Your task to perform on an android device: Open Google Chrome and click the shortcut for Amazon.com Image 0: 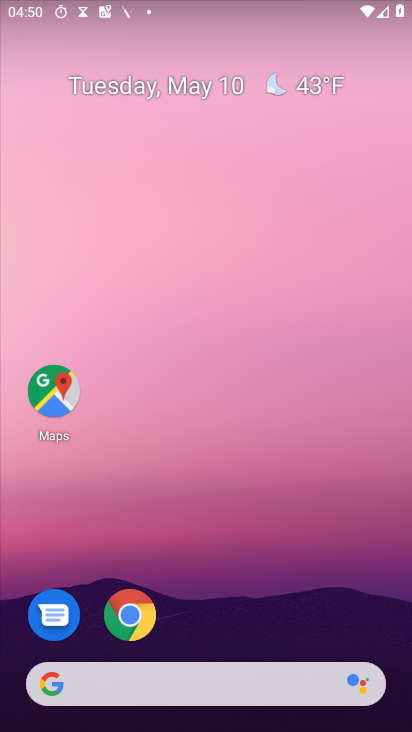
Step 0: drag from (312, 664) to (286, 111)
Your task to perform on an android device: Open Google Chrome and click the shortcut for Amazon.com Image 1: 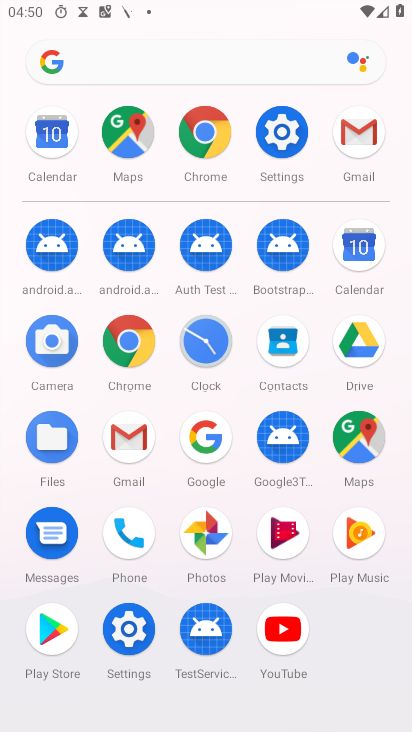
Step 1: click (133, 360)
Your task to perform on an android device: Open Google Chrome and click the shortcut for Amazon.com Image 2: 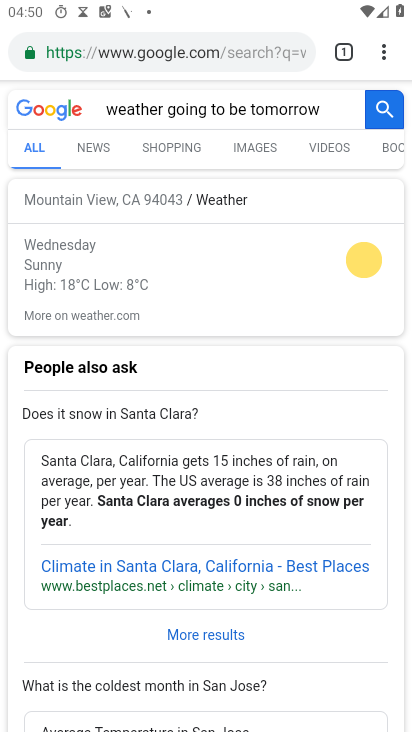
Step 2: drag from (381, 47) to (307, 95)
Your task to perform on an android device: Open Google Chrome and click the shortcut for Amazon.com Image 3: 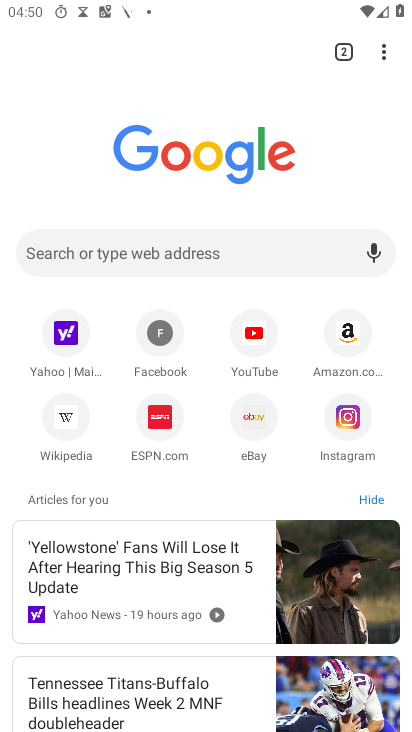
Step 3: click (345, 342)
Your task to perform on an android device: Open Google Chrome and click the shortcut for Amazon.com Image 4: 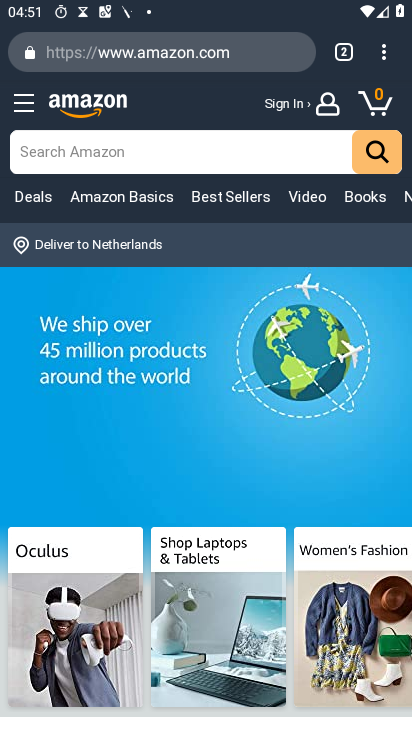
Step 4: task complete